Your task to perform on an android device: Open location settings Image 0: 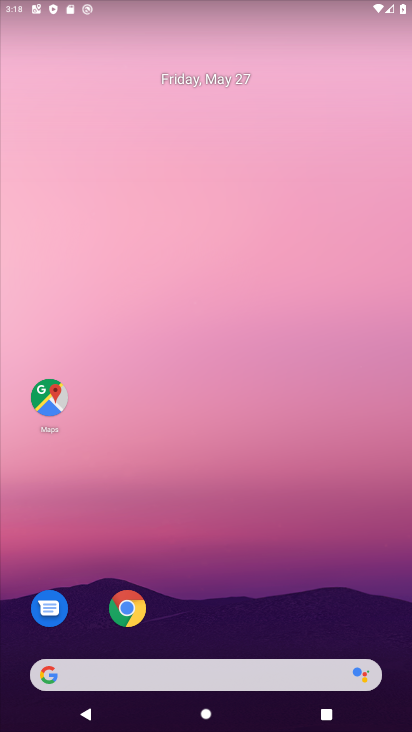
Step 0: drag from (150, 644) to (163, 271)
Your task to perform on an android device: Open location settings Image 1: 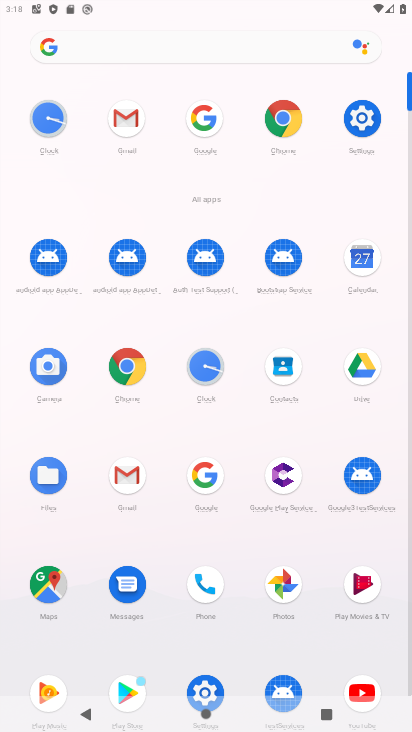
Step 1: click (363, 129)
Your task to perform on an android device: Open location settings Image 2: 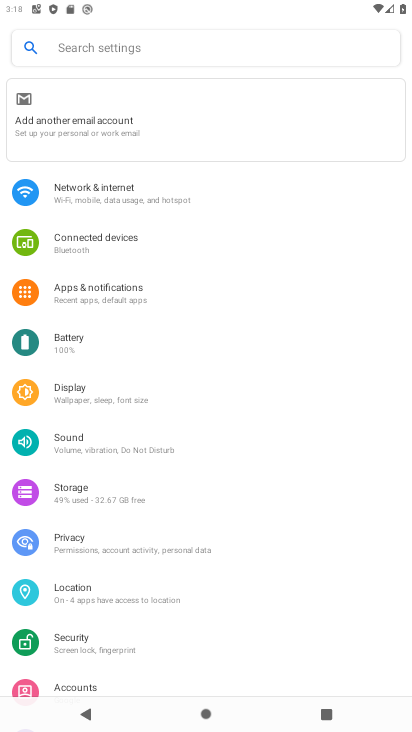
Step 2: click (112, 594)
Your task to perform on an android device: Open location settings Image 3: 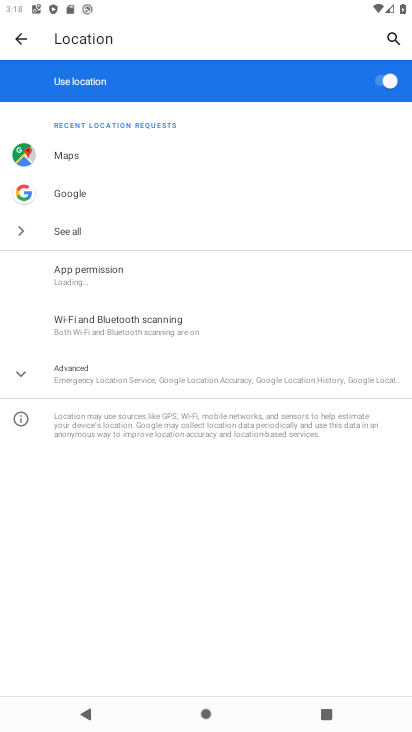
Step 3: click (92, 373)
Your task to perform on an android device: Open location settings Image 4: 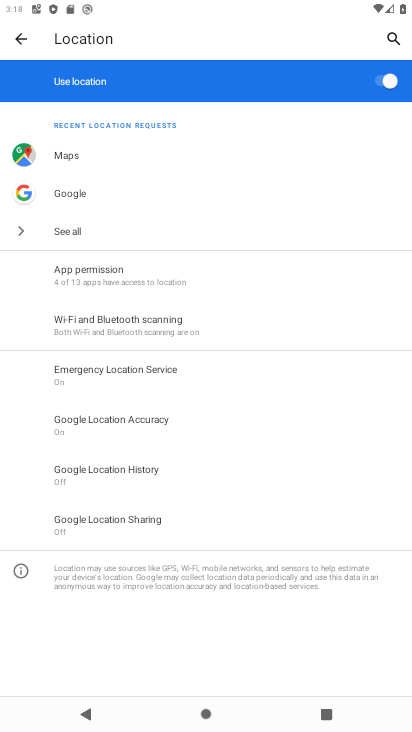
Step 4: task complete